Your task to perform on an android device: turn off javascript in the chrome app Image 0: 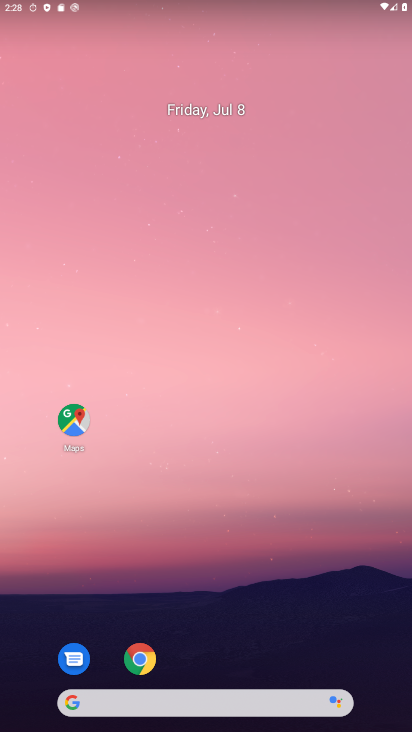
Step 0: click (139, 660)
Your task to perform on an android device: turn off javascript in the chrome app Image 1: 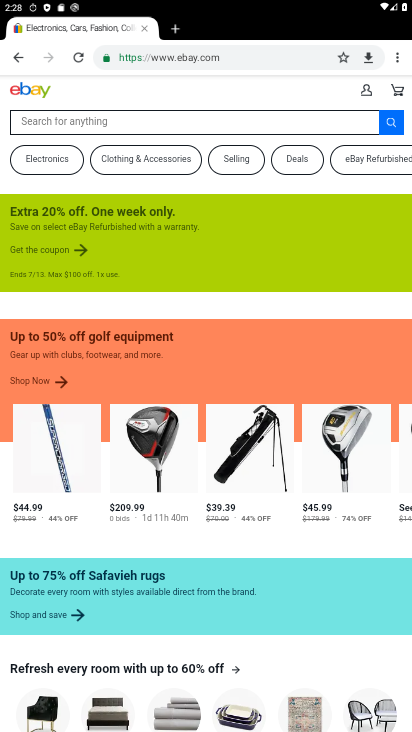
Step 1: click (391, 53)
Your task to perform on an android device: turn off javascript in the chrome app Image 2: 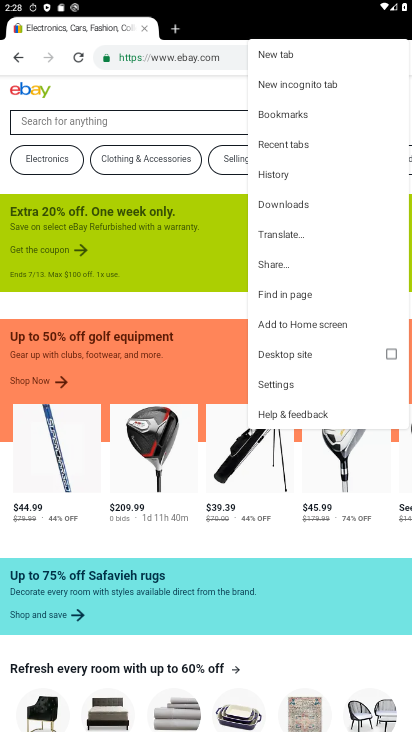
Step 2: click (292, 386)
Your task to perform on an android device: turn off javascript in the chrome app Image 3: 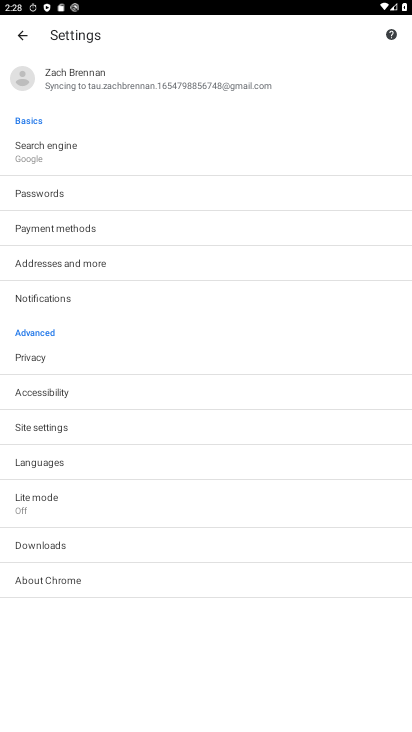
Step 3: click (77, 426)
Your task to perform on an android device: turn off javascript in the chrome app Image 4: 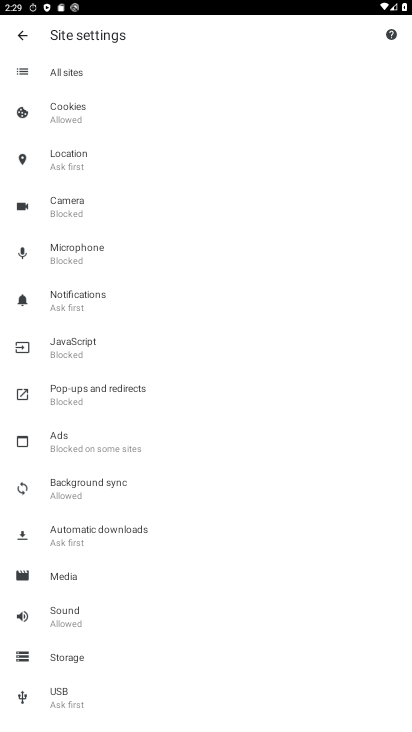
Step 4: click (89, 338)
Your task to perform on an android device: turn off javascript in the chrome app Image 5: 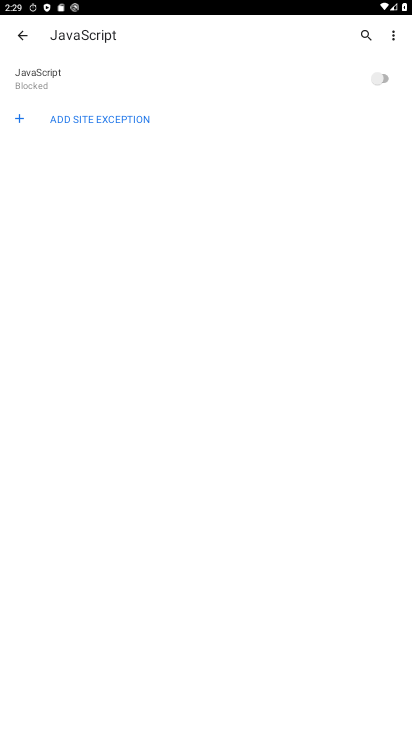
Step 5: task complete